Your task to perform on an android device: check out phone information Image 0: 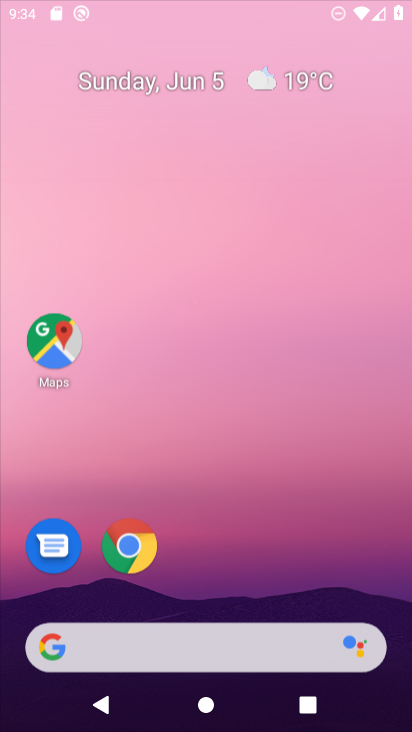
Step 0: click (231, 25)
Your task to perform on an android device: check out phone information Image 1: 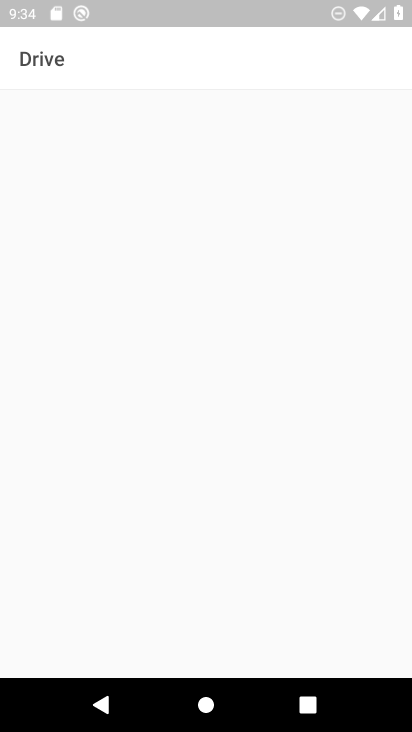
Step 1: press home button
Your task to perform on an android device: check out phone information Image 2: 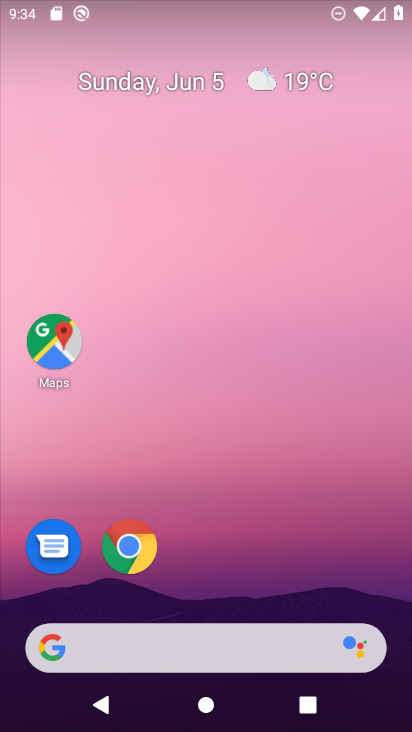
Step 2: drag from (224, 616) to (242, 55)
Your task to perform on an android device: check out phone information Image 3: 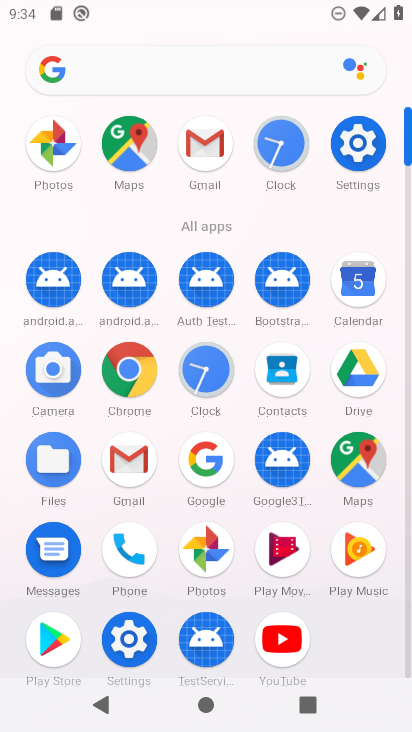
Step 3: click (358, 144)
Your task to perform on an android device: check out phone information Image 4: 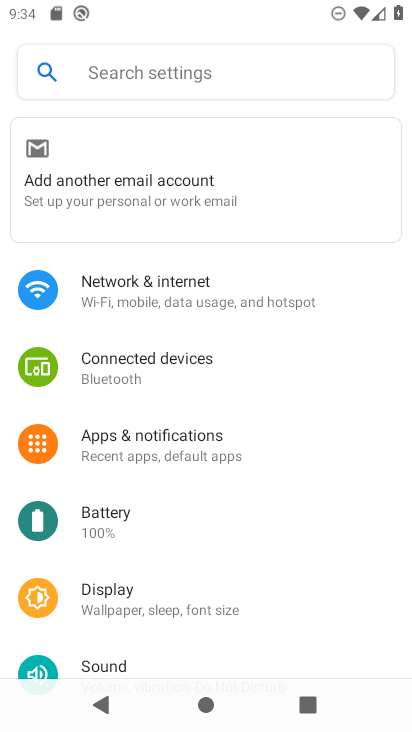
Step 4: task complete